Your task to perform on an android device: What is the recent news? Image 0: 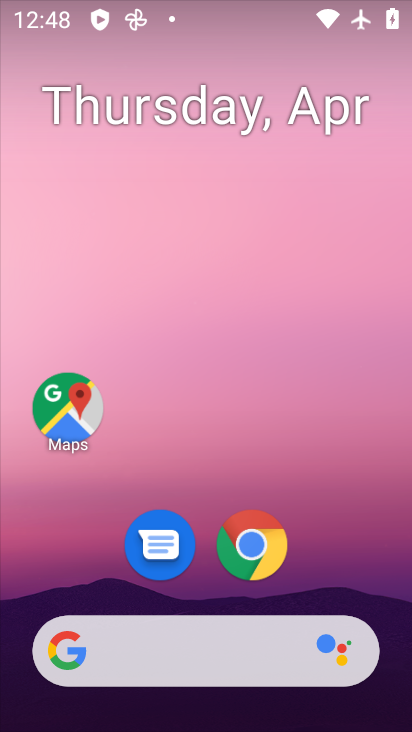
Step 0: click (263, 537)
Your task to perform on an android device: What is the recent news? Image 1: 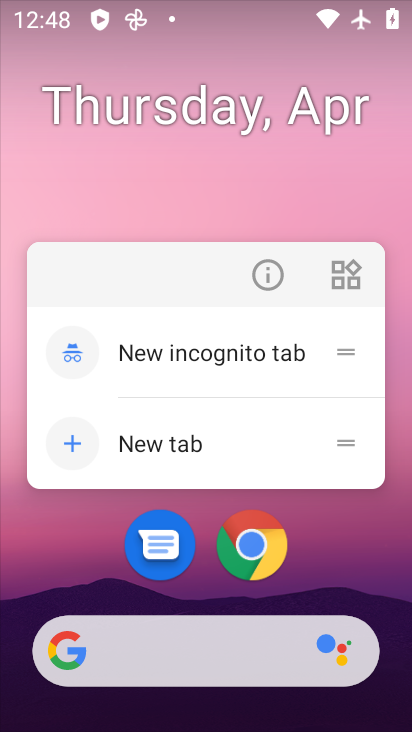
Step 1: click (259, 551)
Your task to perform on an android device: What is the recent news? Image 2: 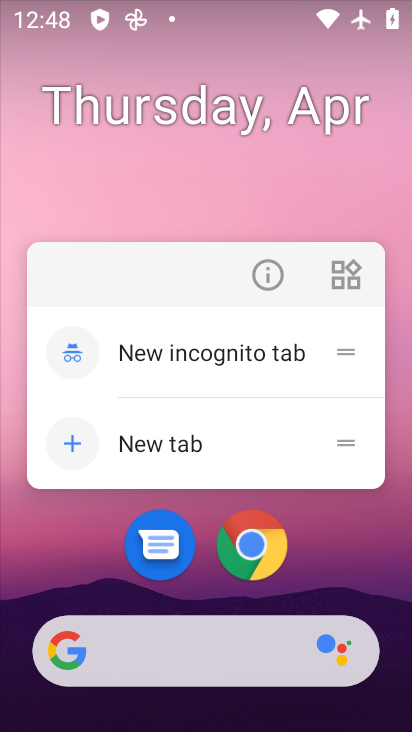
Step 2: click (258, 552)
Your task to perform on an android device: What is the recent news? Image 3: 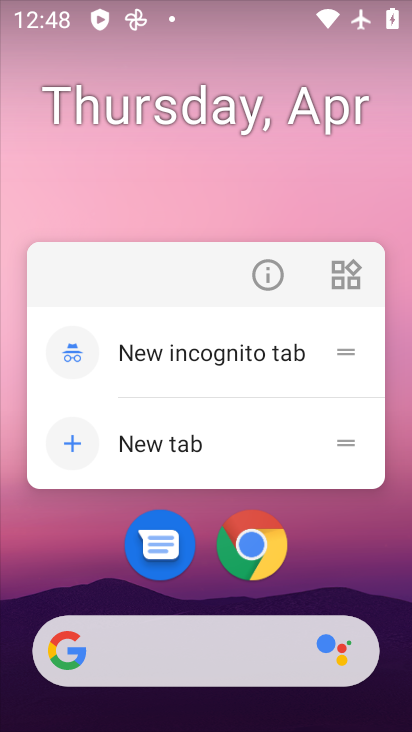
Step 3: click (331, 567)
Your task to perform on an android device: What is the recent news? Image 4: 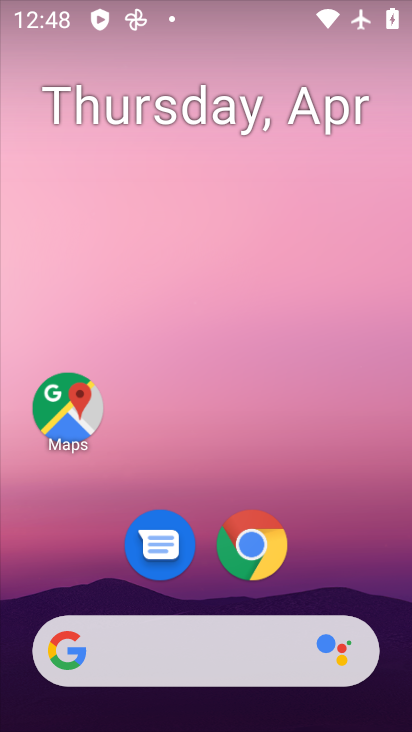
Step 4: click (247, 547)
Your task to perform on an android device: What is the recent news? Image 5: 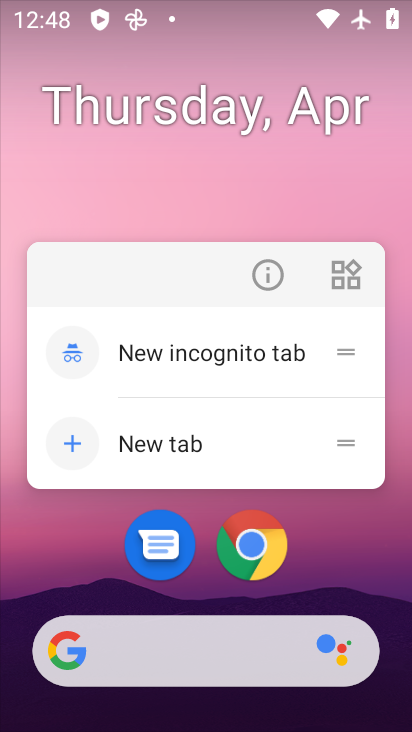
Step 5: click (298, 546)
Your task to perform on an android device: What is the recent news? Image 6: 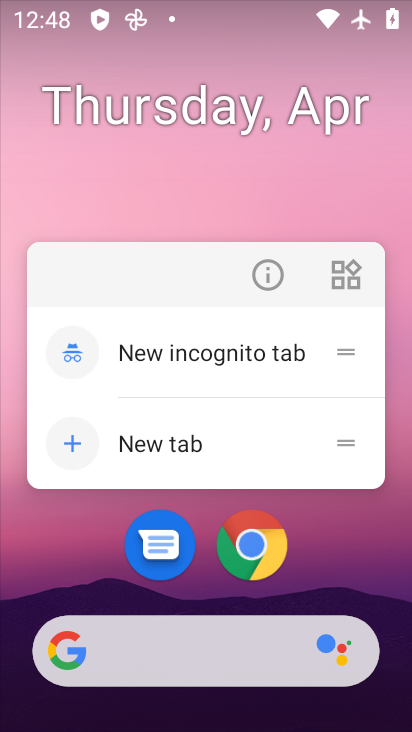
Step 6: drag from (314, 472) to (222, 51)
Your task to perform on an android device: What is the recent news? Image 7: 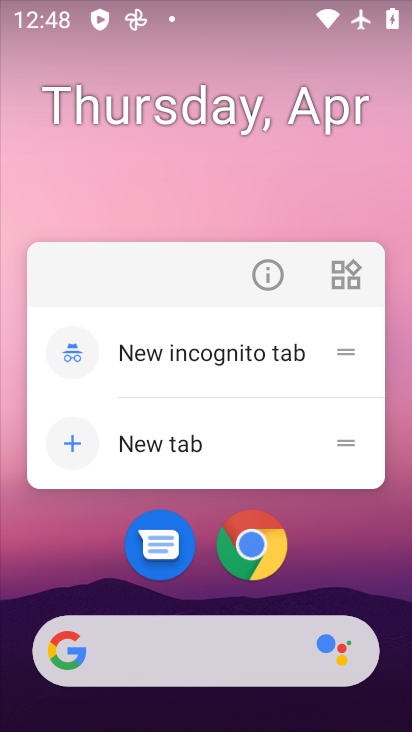
Step 7: click (259, 539)
Your task to perform on an android device: What is the recent news? Image 8: 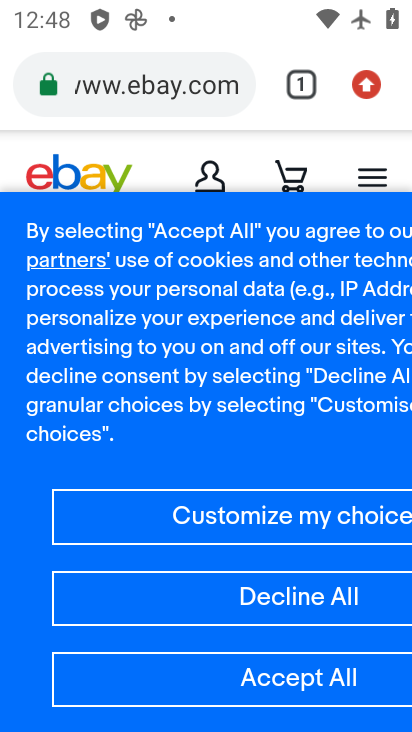
Step 8: click (214, 79)
Your task to perform on an android device: What is the recent news? Image 9: 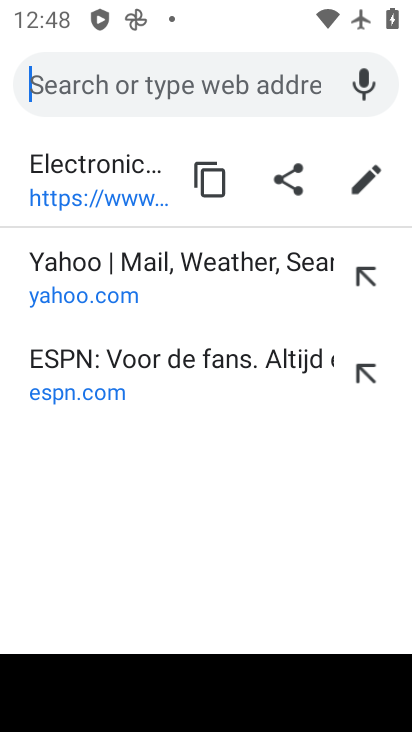
Step 9: type "news"
Your task to perform on an android device: What is the recent news? Image 10: 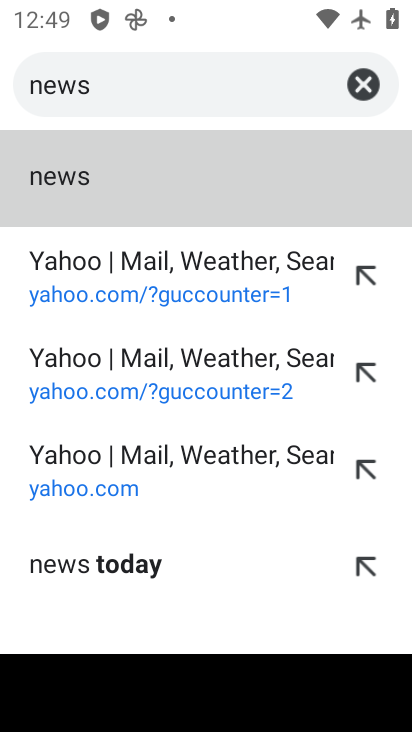
Step 10: press enter
Your task to perform on an android device: What is the recent news? Image 11: 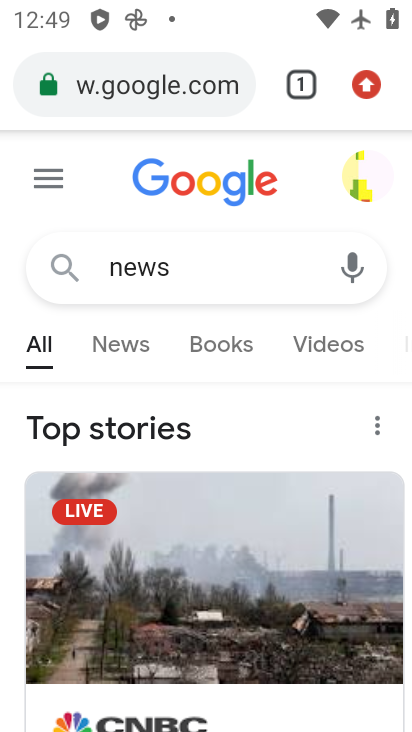
Step 11: click (119, 350)
Your task to perform on an android device: What is the recent news? Image 12: 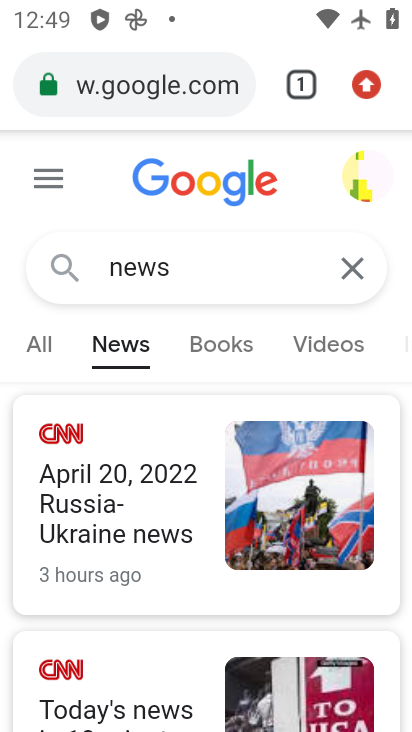
Step 12: task complete